Your task to perform on an android device: Check the news Image 0: 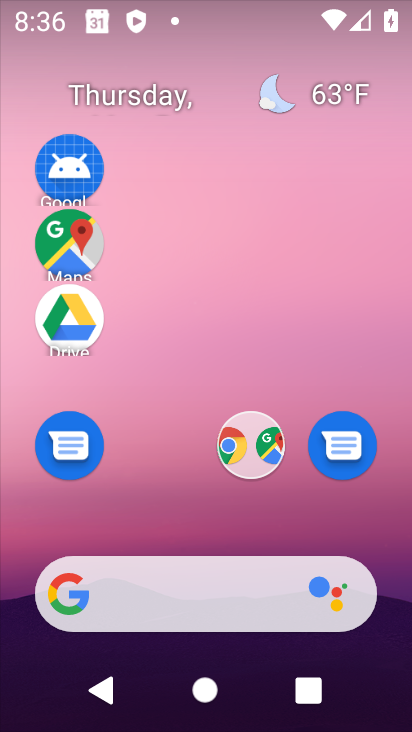
Step 0: click (296, 432)
Your task to perform on an android device: Check the news Image 1: 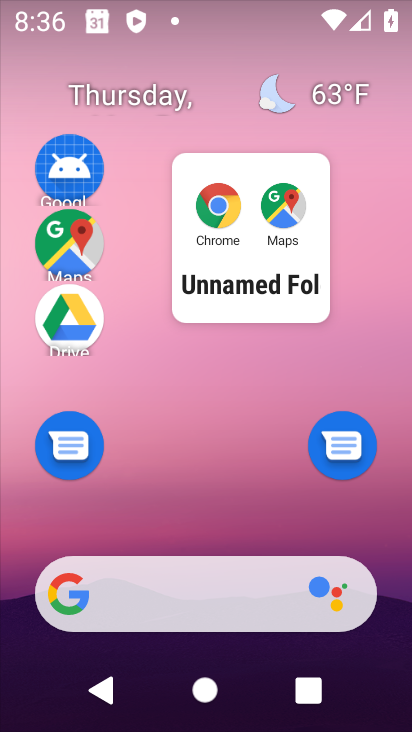
Step 1: click (184, 452)
Your task to perform on an android device: Check the news Image 2: 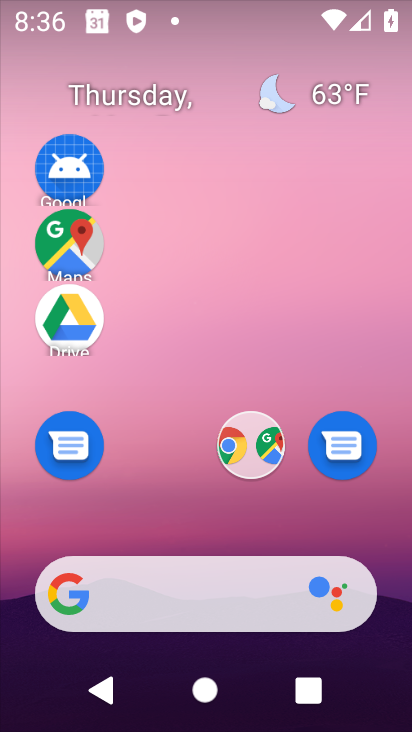
Step 2: drag from (39, 501) to (392, 488)
Your task to perform on an android device: Check the news Image 3: 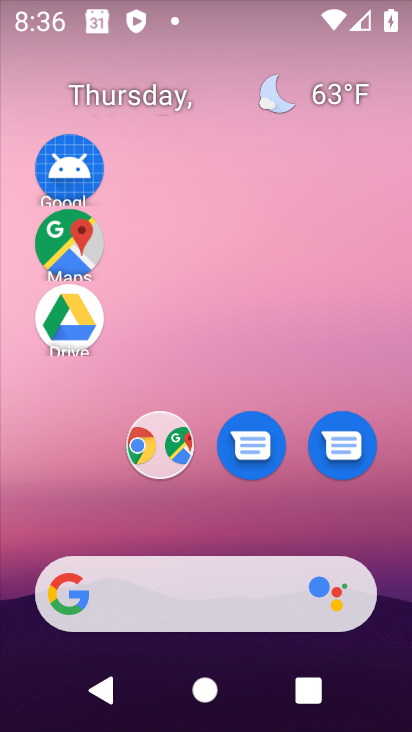
Step 3: drag from (20, 371) to (362, 336)
Your task to perform on an android device: Check the news Image 4: 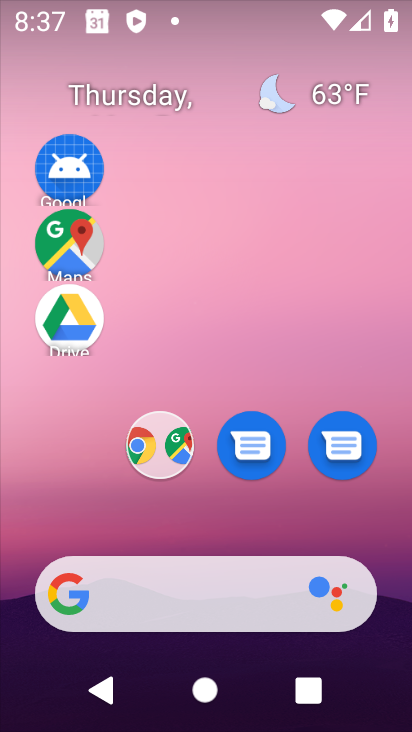
Step 4: drag from (5, 381) to (383, 422)
Your task to perform on an android device: Check the news Image 5: 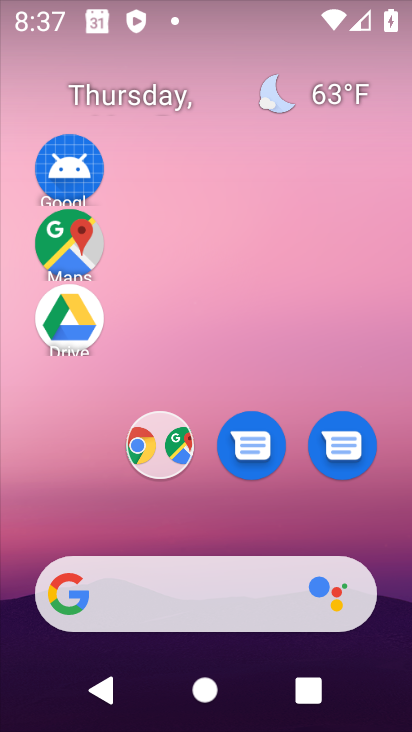
Step 5: drag from (14, 486) to (403, 504)
Your task to perform on an android device: Check the news Image 6: 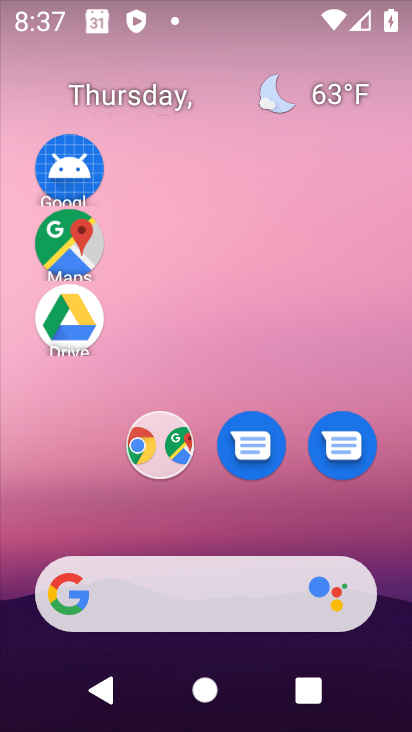
Step 6: click (192, 585)
Your task to perform on an android device: Check the news Image 7: 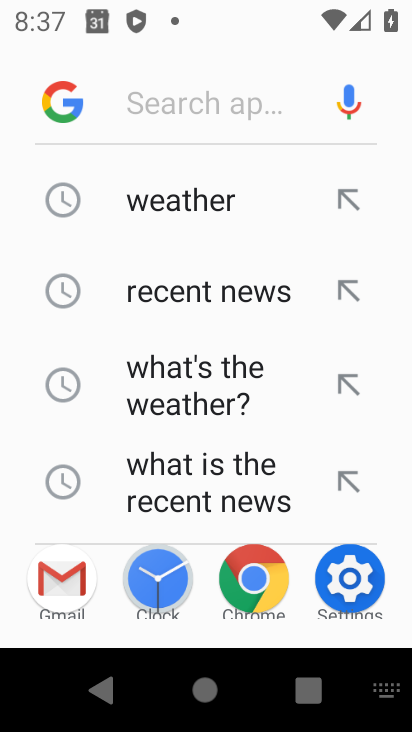
Step 7: click (176, 285)
Your task to perform on an android device: Check the news Image 8: 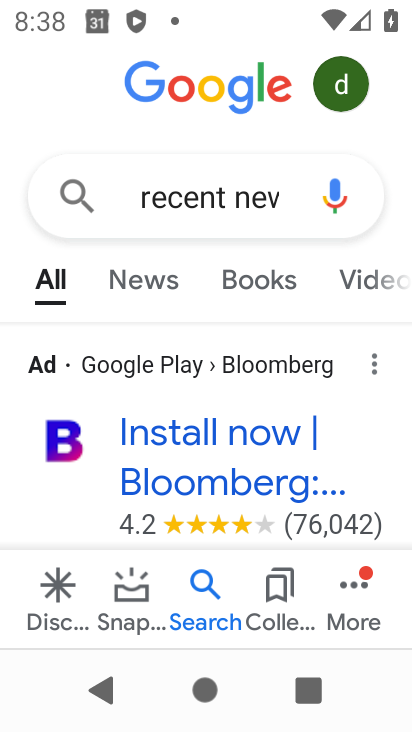
Step 8: click (117, 277)
Your task to perform on an android device: Check the news Image 9: 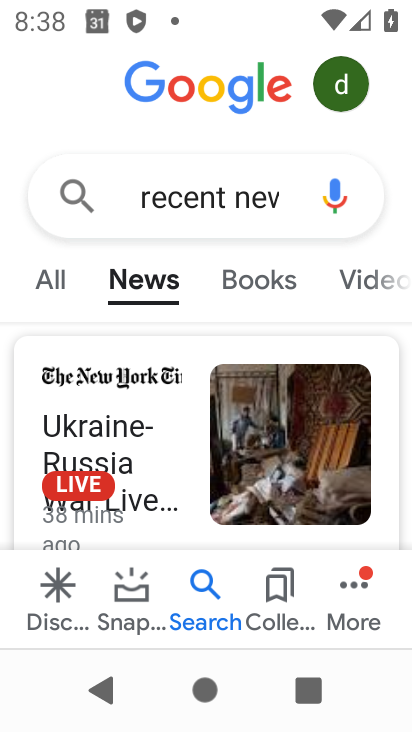
Step 9: task complete